Your task to perform on an android device: find photos in the google photos app Image 0: 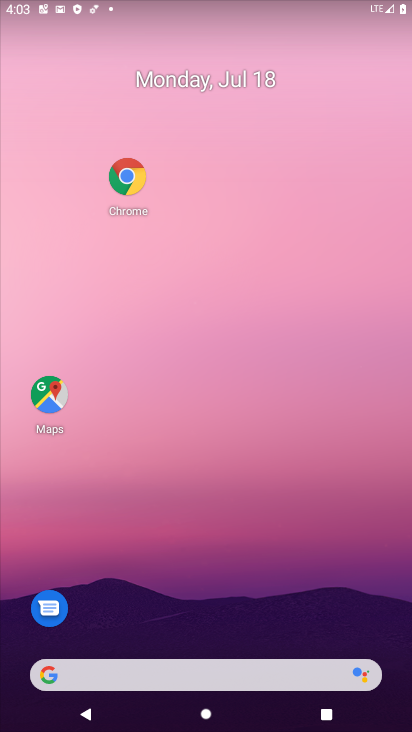
Step 0: drag from (200, 598) to (251, 188)
Your task to perform on an android device: find photos in the google photos app Image 1: 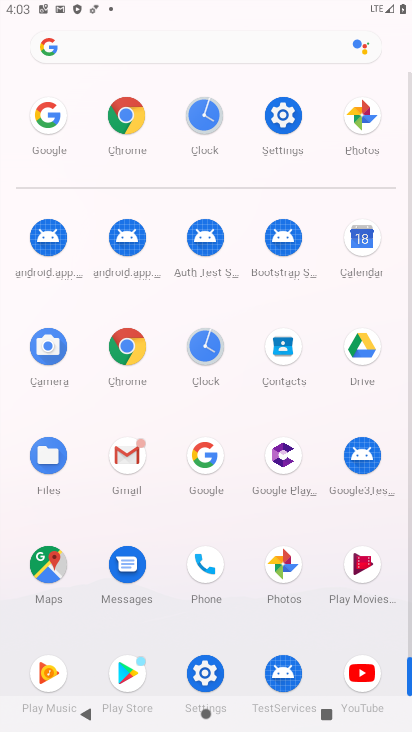
Step 1: click (285, 579)
Your task to perform on an android device: find photos in the google photos app Image 2: 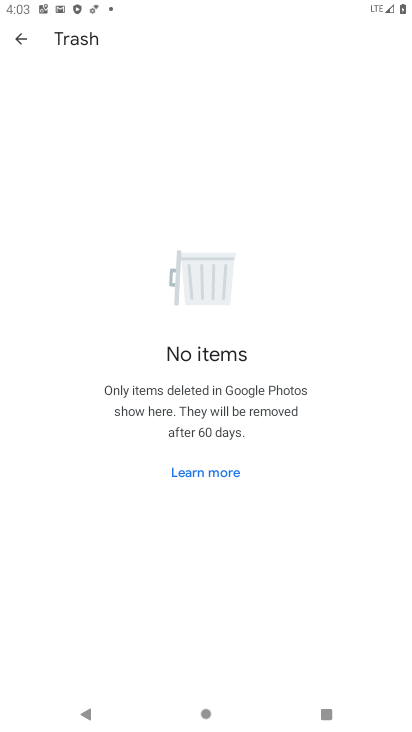
Step 2: click (18, 35)
Your task to perform on an android device: find photos in the google photos app Image 3: 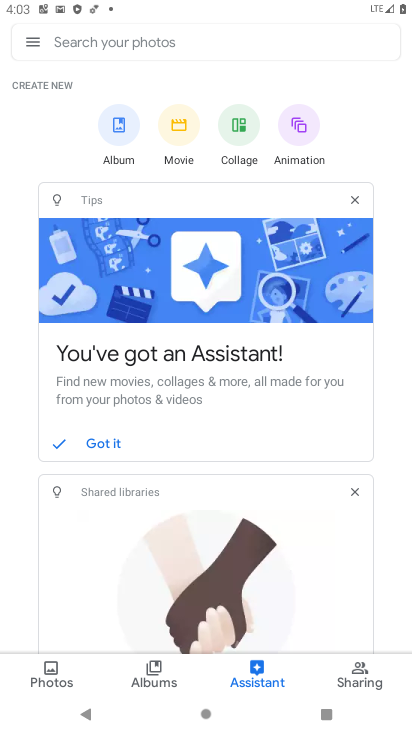
Step 3: click (58, 669)
Your task to perform on an android device: find photos in the google photos app Image 4: 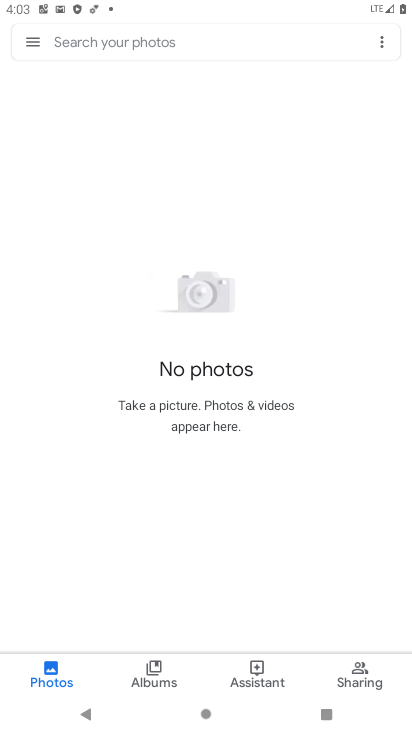
Step 4: task complete